Your task to perform on an android device: change text size in settings app Image 0: 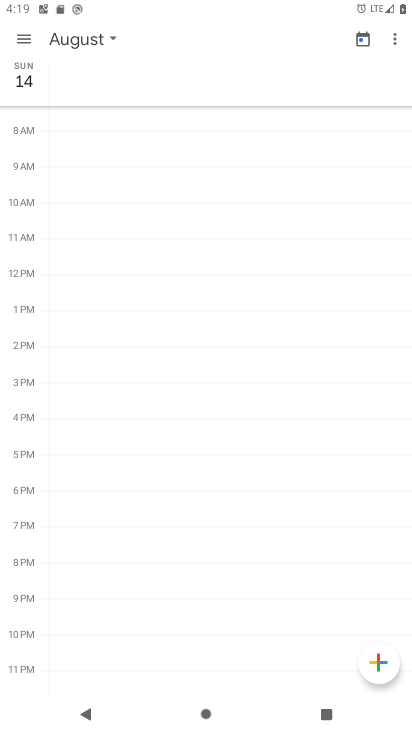
Step 0: press home button
Your task to perform on an android device: change text size in settings app Image 1: 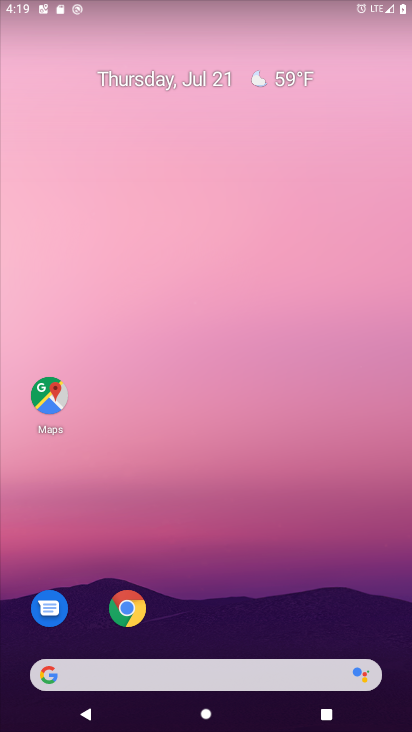
Step 1: drag from (196, 696) to (223, 113)
Your task to perform on an android device: change text size in settings app Image 2: 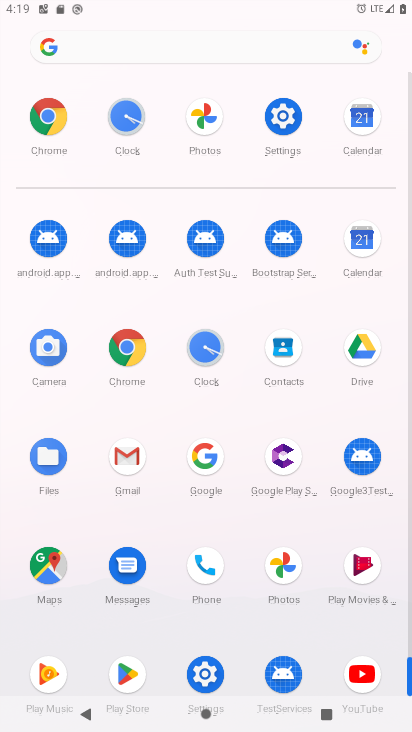
Step 2: click (285, 119)
Your task to perform on an android device: change text size in settings app Image 3: 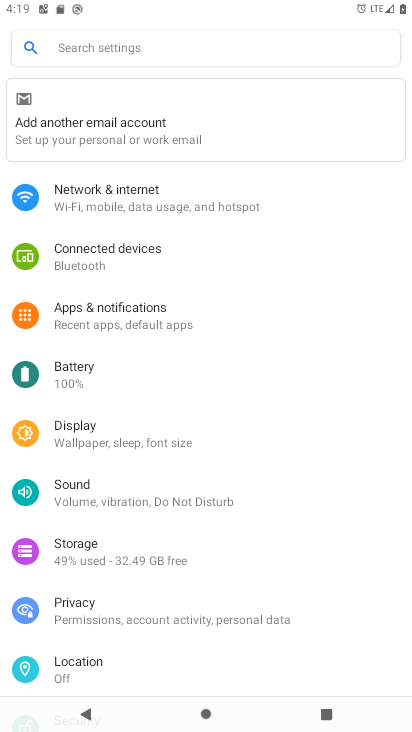
Step 3: drag from (118, 659) to (216, 142)
Your task to perform on an android device: change text size in settings app Image 4: 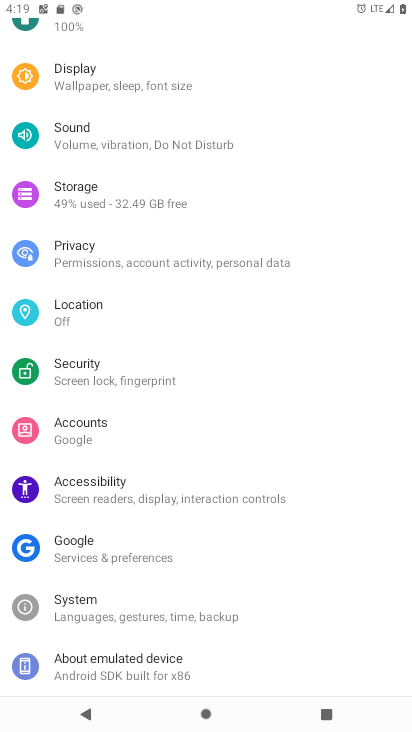
Step 4: drag from (154, 642) to (171, 297)
Your task to perform on an android device: change text size in settings app Image 5: 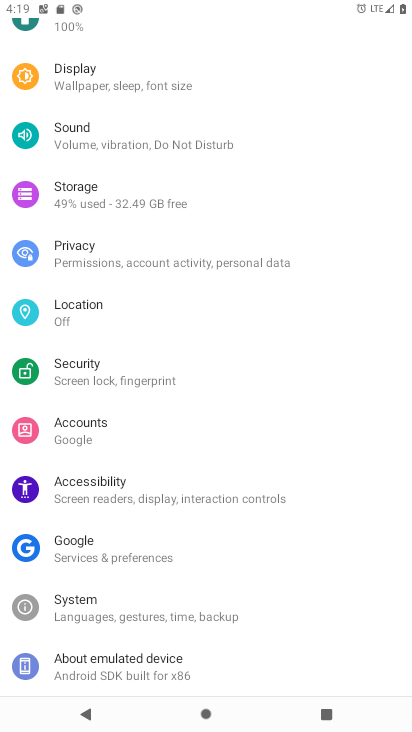
Step 5: drag from (135, 647) to (171, 254)
Your task to perform on an android device: change text size in settings app Image 6: 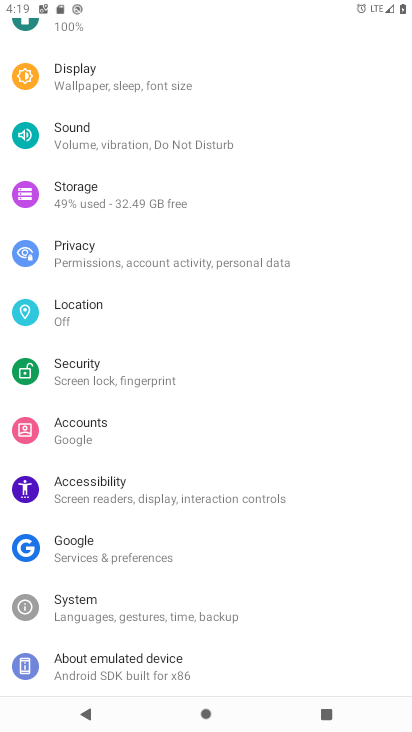
Step 6: click (137, 503)
Your task to perform on an android device: change text size in settings app Image 7: 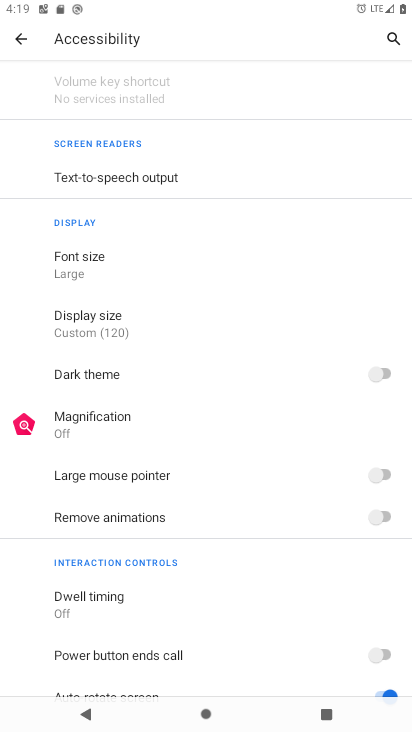
Step 7: click (104, 265)
Your task to perform on an android device: change text size in settings app Image 8: 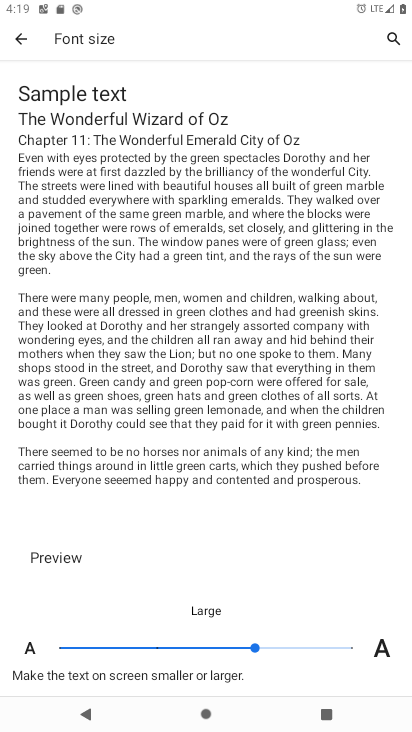
Step 8: click (347, 649)
Your task to perform on an android device: change text size in settings app Image 9: 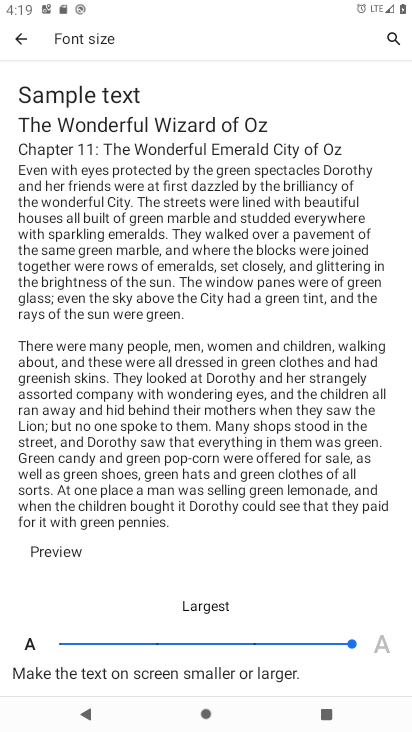
Step 9: task complete